Your task to perform on an android device: delete browsing data in the chrome app Image 0: 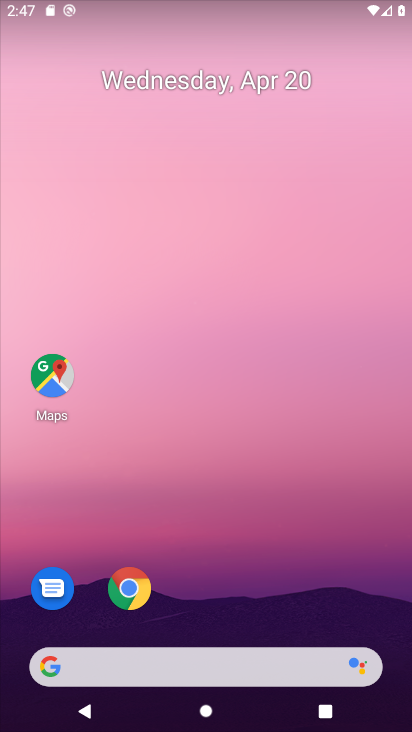
Step 0: drag from (298, 604) to (319, 153)
Your task to perform on an android device: delete browsing data in the chrome app Image 1: 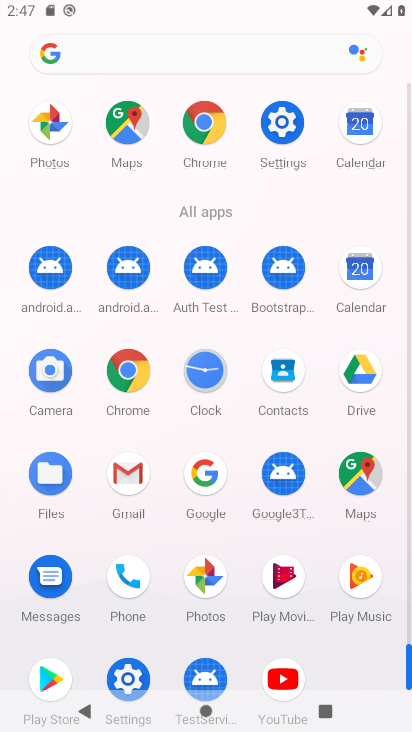
Step 1: click (123, 376)
Your task to perform on an android device: delete browsing data in the chrome app Image 2: 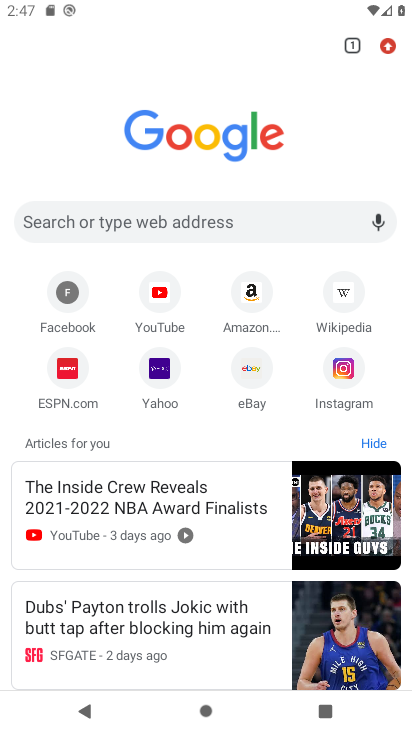
Step 2: click (392, 43)
Your task to perform on an android device: delete browsing data in the chrome app Image 3: 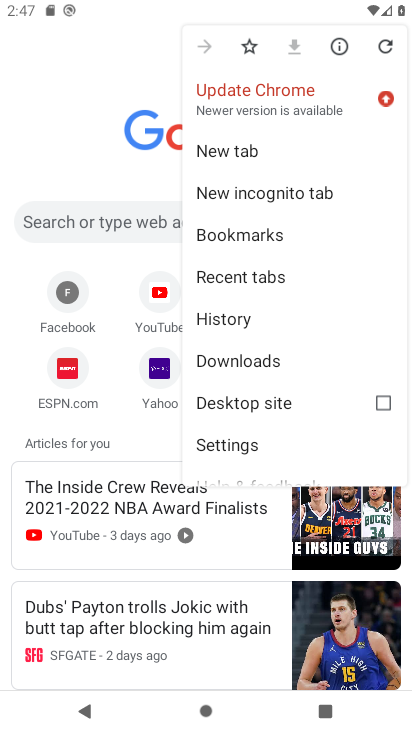
Step 3: click (252, 445)
Your task to perform on an android device: delete browsing data in the chrome app Image 4: 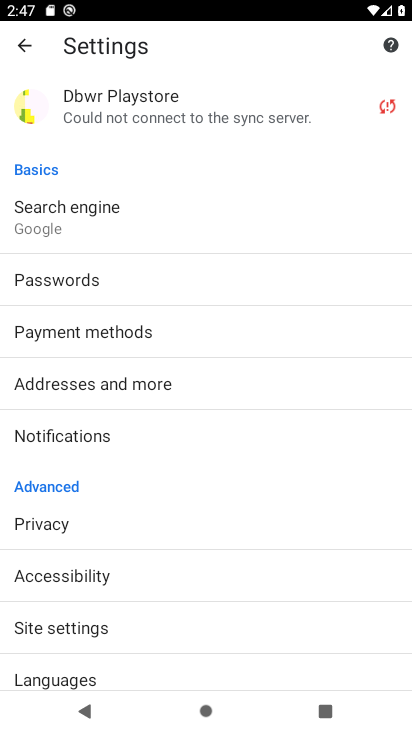
Step 4: drag from (271, 531) to (275, 395)
Your task to perform on an android device: delete browsing data in the chrome app Image 5: 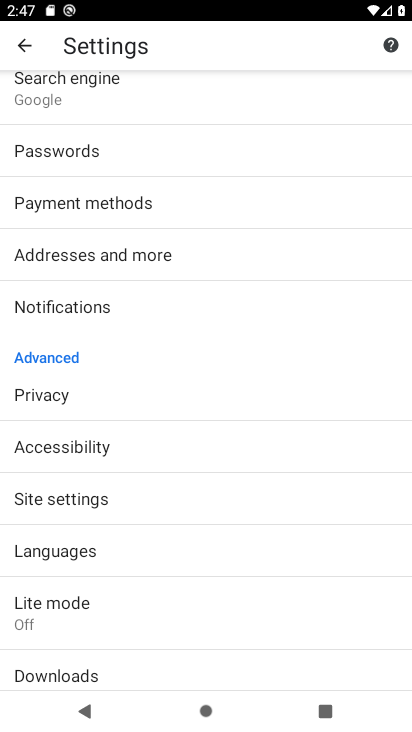
Step 5: drag from (275, 581) to (282, 438)
Your task to perform on an android device: delete browsing data in the chrome app Image 6: 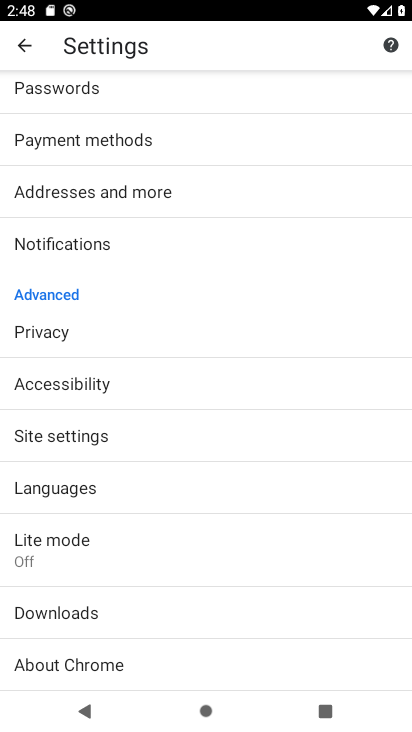
Step 6: click (149, 330)
Your task to perform on an android device: delete browsing data in the chrome app Image 7: 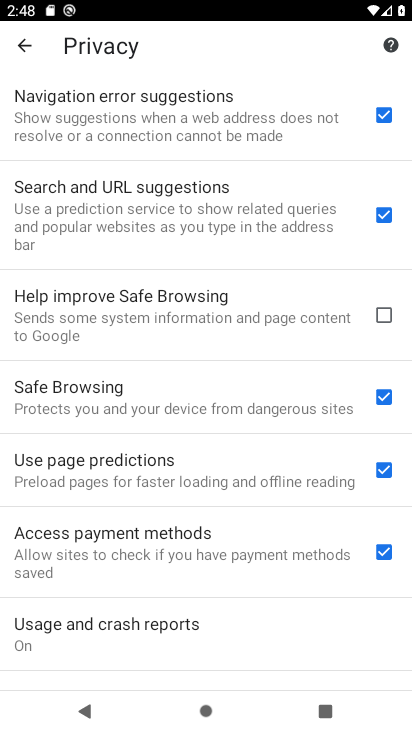
Step 7: drag from (279, 581) to (291, 457)
Your task to perform on an android device: delete browsing data in the chrome app Image 8: 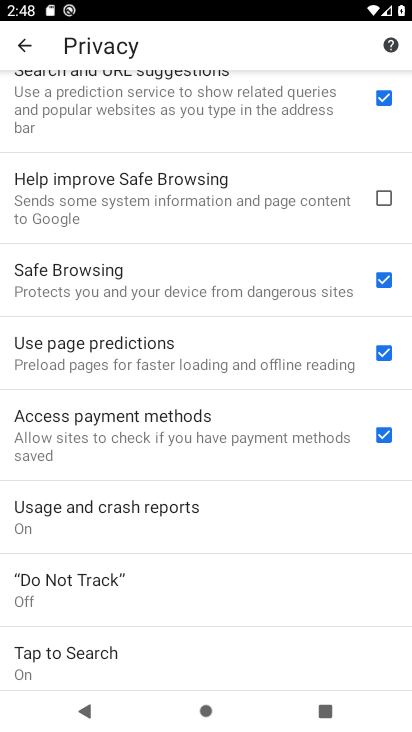
Step 8: drag from (290, 596) to (295, 444)
Your task to perform on an android device: delete browsing data in the chrome app Image 9: 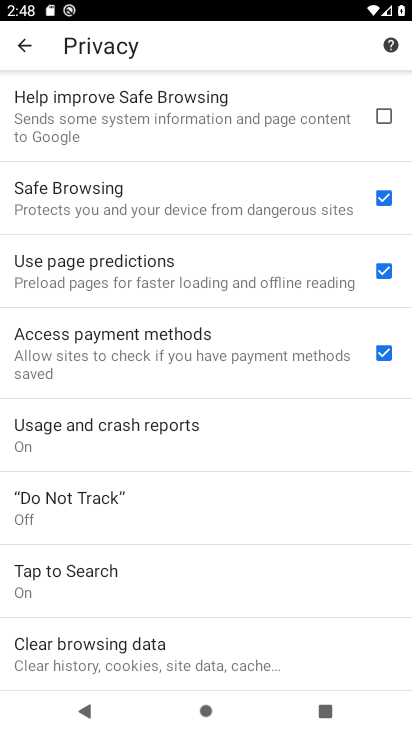
Step 9: drag from (289, 597) to (293, 460)
Your task to perform on an android device: delete browsing data in the chrome app Image 10: 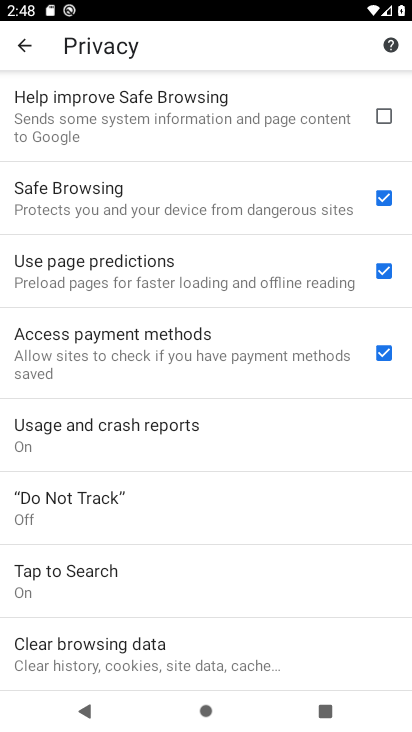
Step 10: click (136, 656)
Your task to perform on an android device: delete browsing data in the chrome app Image 11: 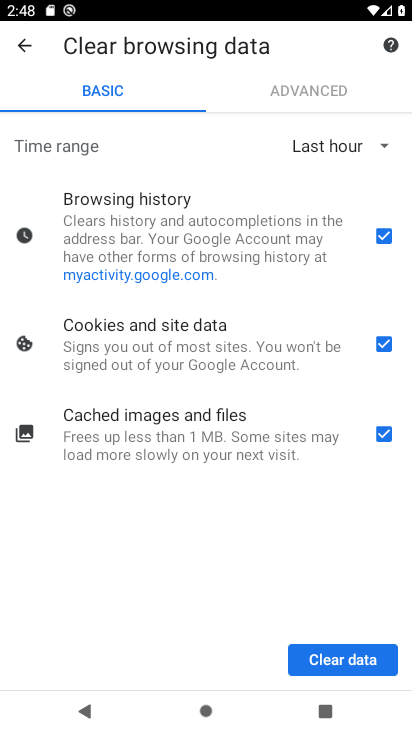
Step 11: click (334, 657)
Your task to perform on an android device: delete browsing data in the chrome app Image 12: 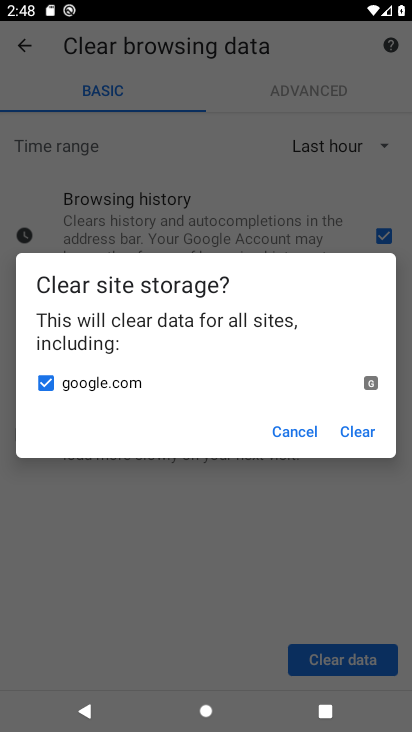
Step 12: click (373, 427)
Your task to perform on an android device: delete browsing data in the chrome app Image 13: 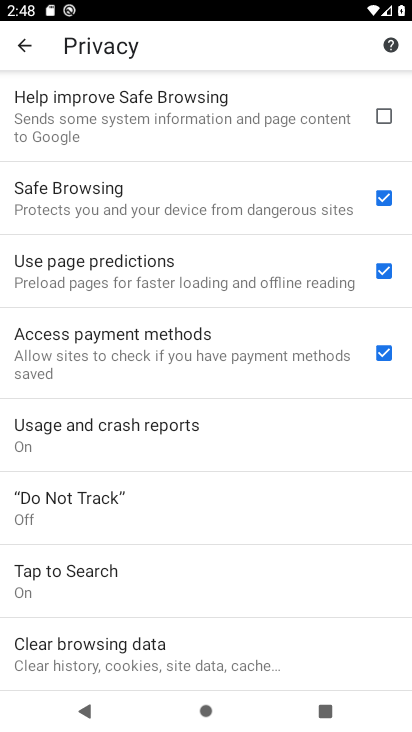
Step 13: task complete